Your task to perform on an android device: Go to battery settings Image 0: 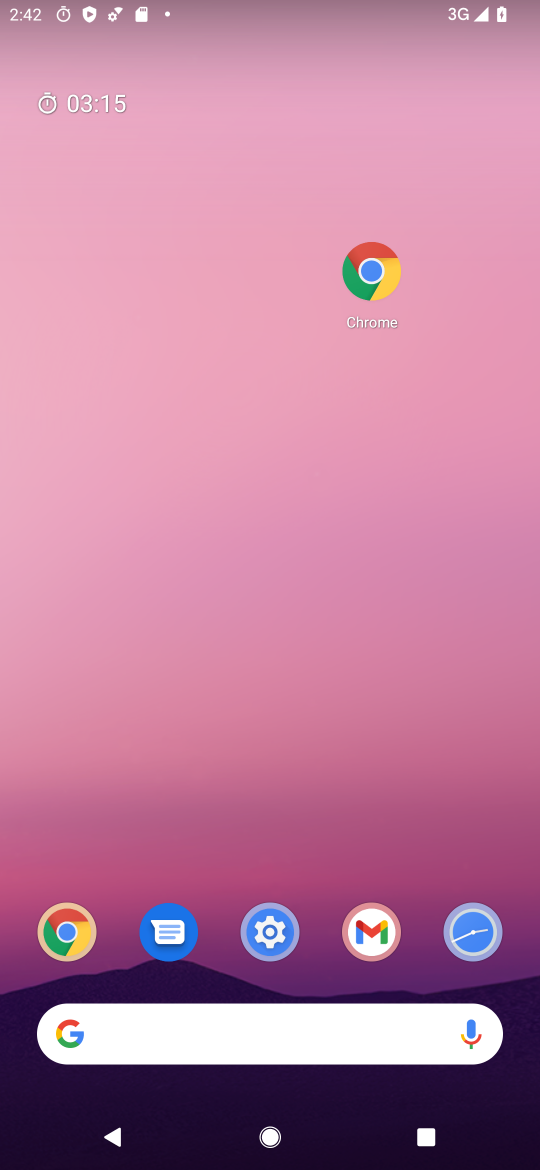
Step 0: drag from (311, 957) to (435, 17)
Your task to perform on an android device: Go to battery settings Image 1: 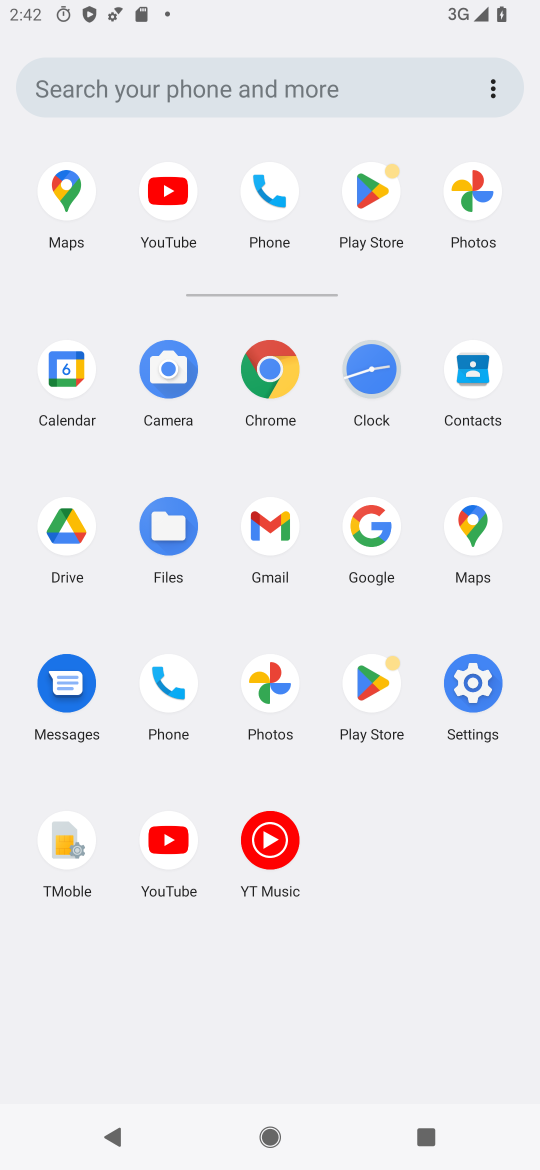
Step 1: click (463, 674)
Your task to perform on an android device: Go to battery settings Image 2: 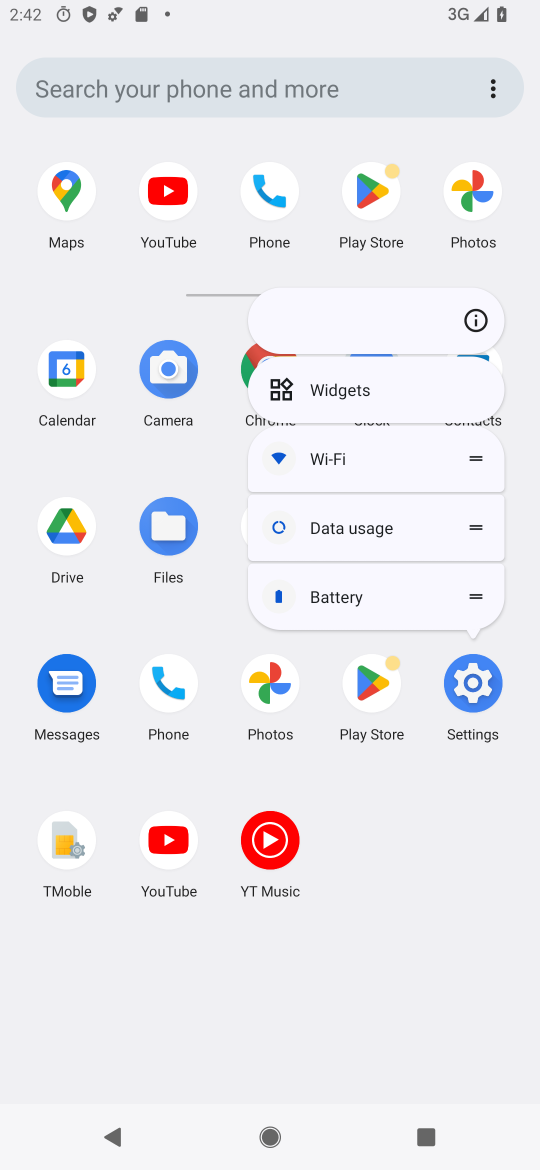
Step 2: click (305, 588)
Your task to perform on an android device: Go to battery settings Image 3: 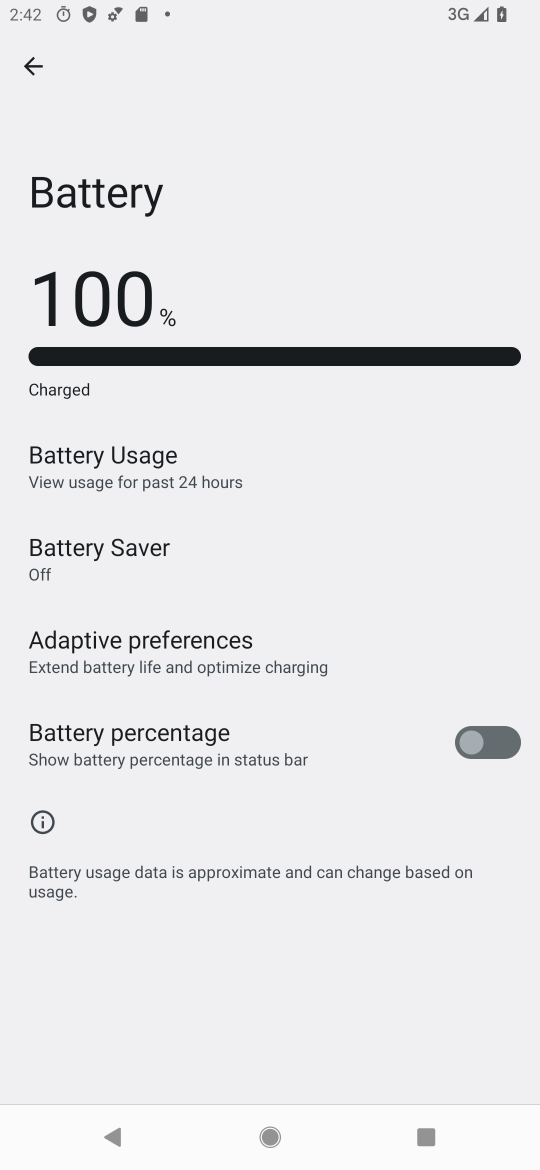
Step 3: task complete